Your task to perform on an android device: Go to Yahoo.com Image 0: 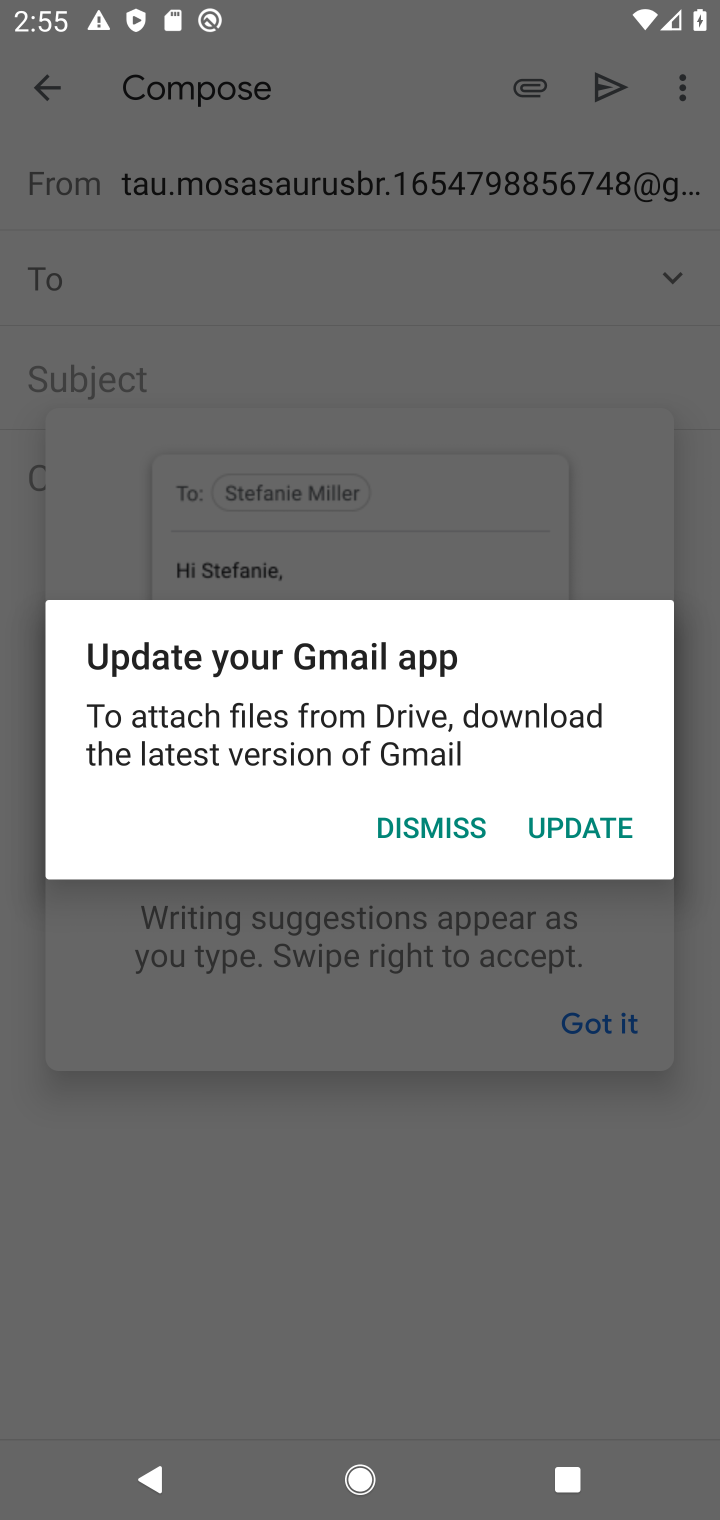
Step 0: press back button
Your task to perform on an android device: Go to Yahoo.com Image 1: 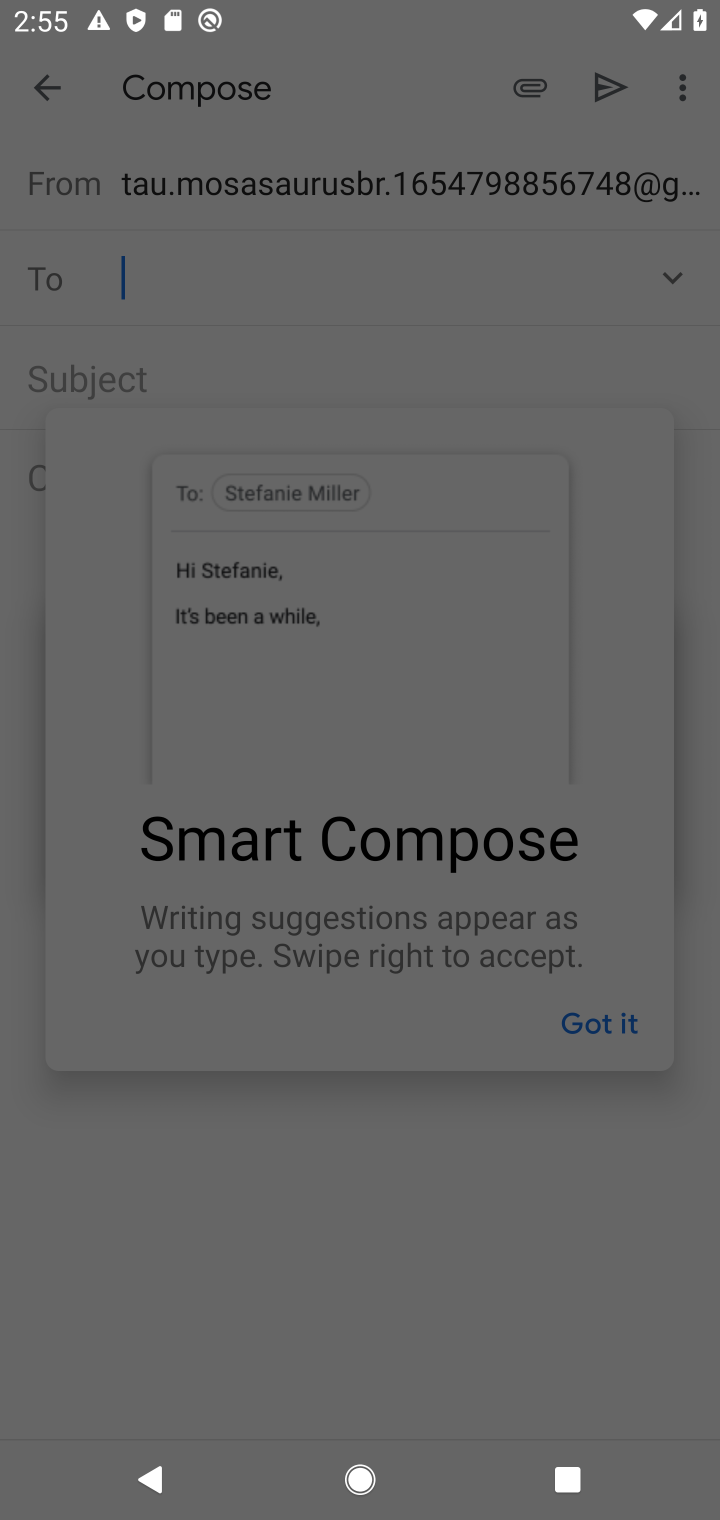
Step 1: press back button
Your task to perform on an android device: Go to Yahoo.com Image 2: 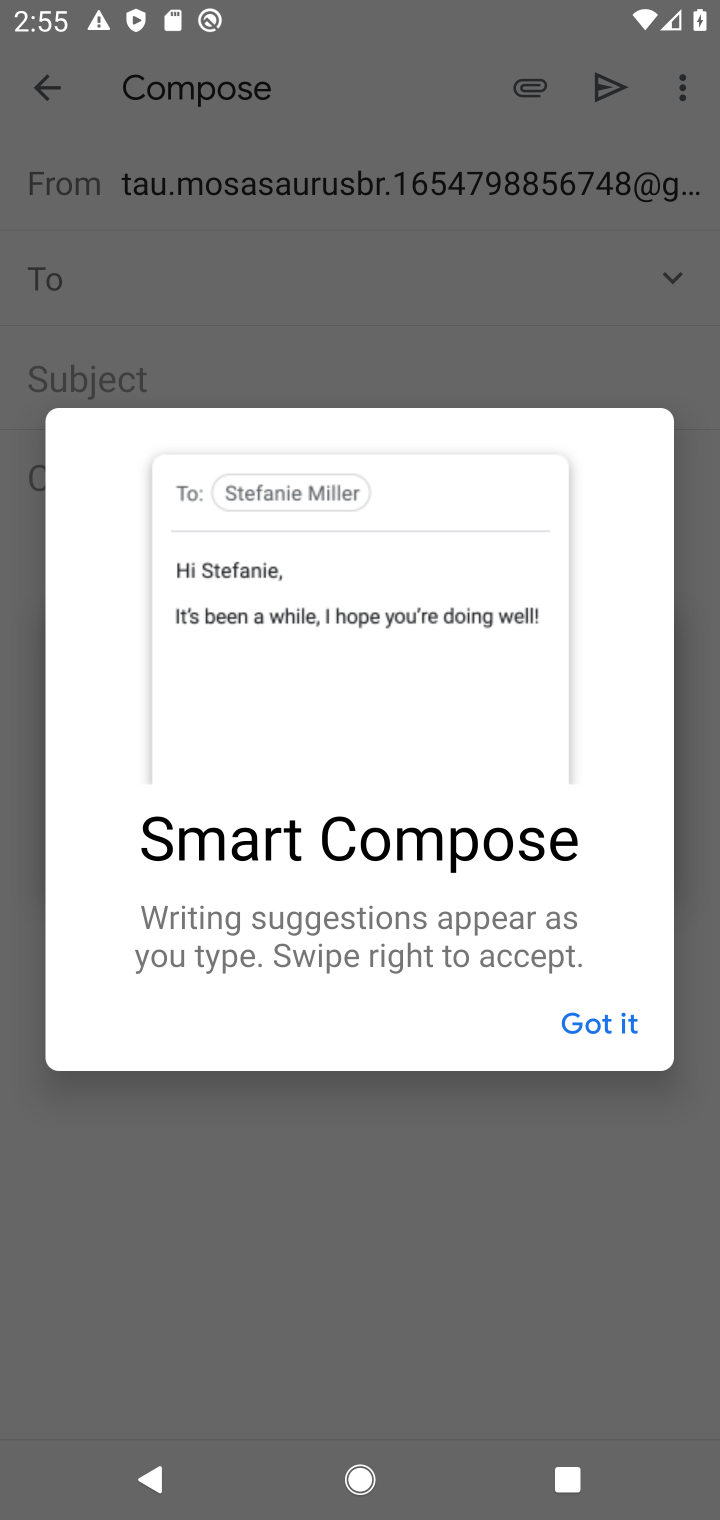
Step 2: press home button
Your task to perform on an android device: Go to Yahoo.com Image 3: 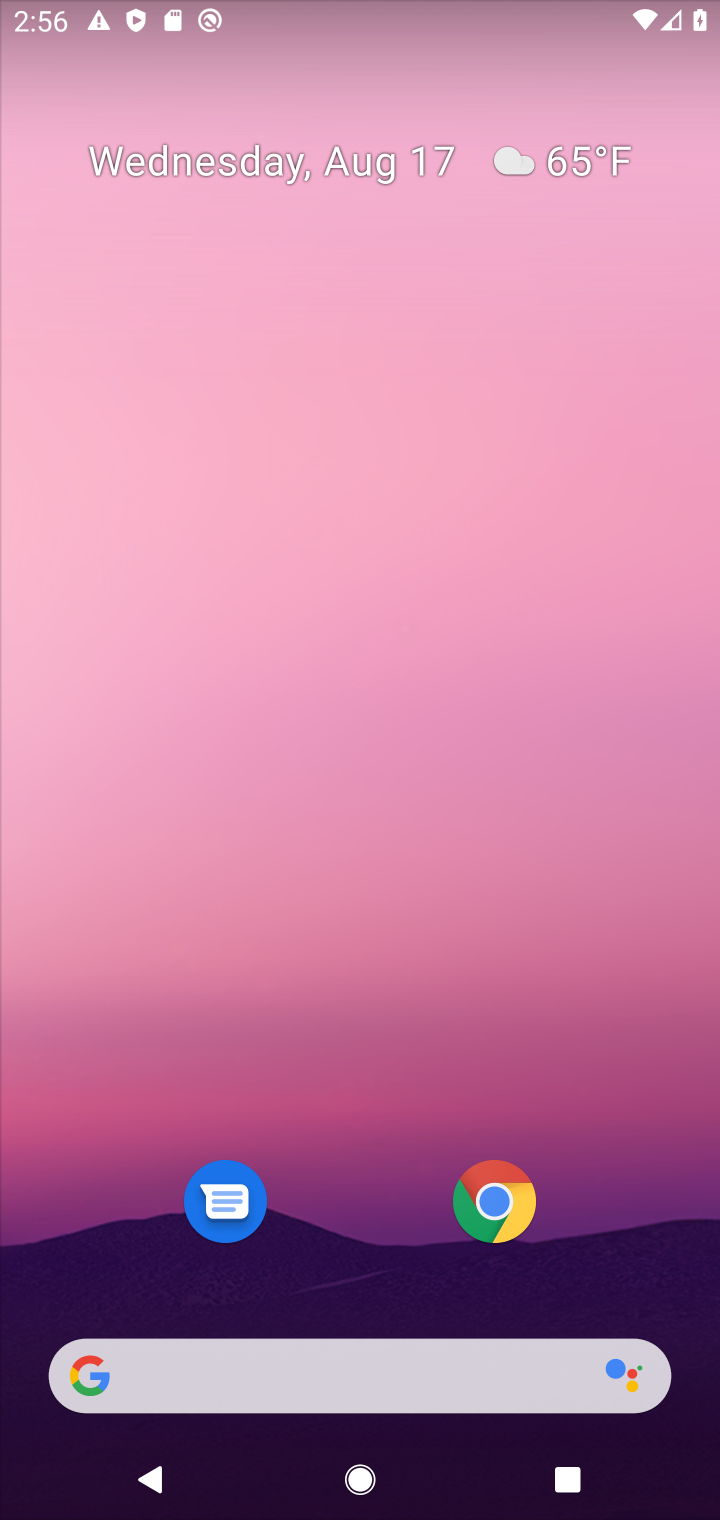
Step 3: click (525, 1209)
Your task to perform on an android device: Go to Yahoo.com Image 4: 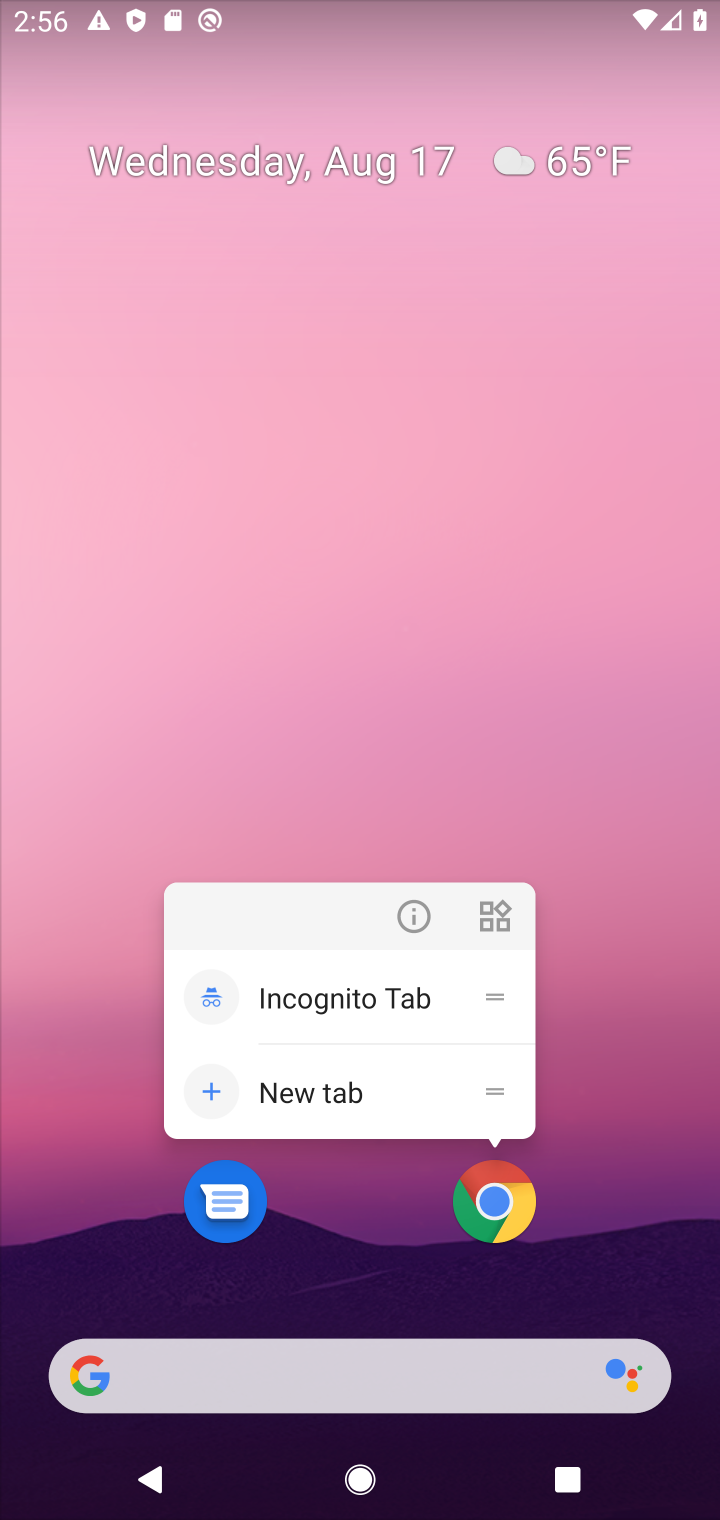
Step 4: click (500, 1200)
Your task to perform on an android device: Go to Yahoo.com Image 5: 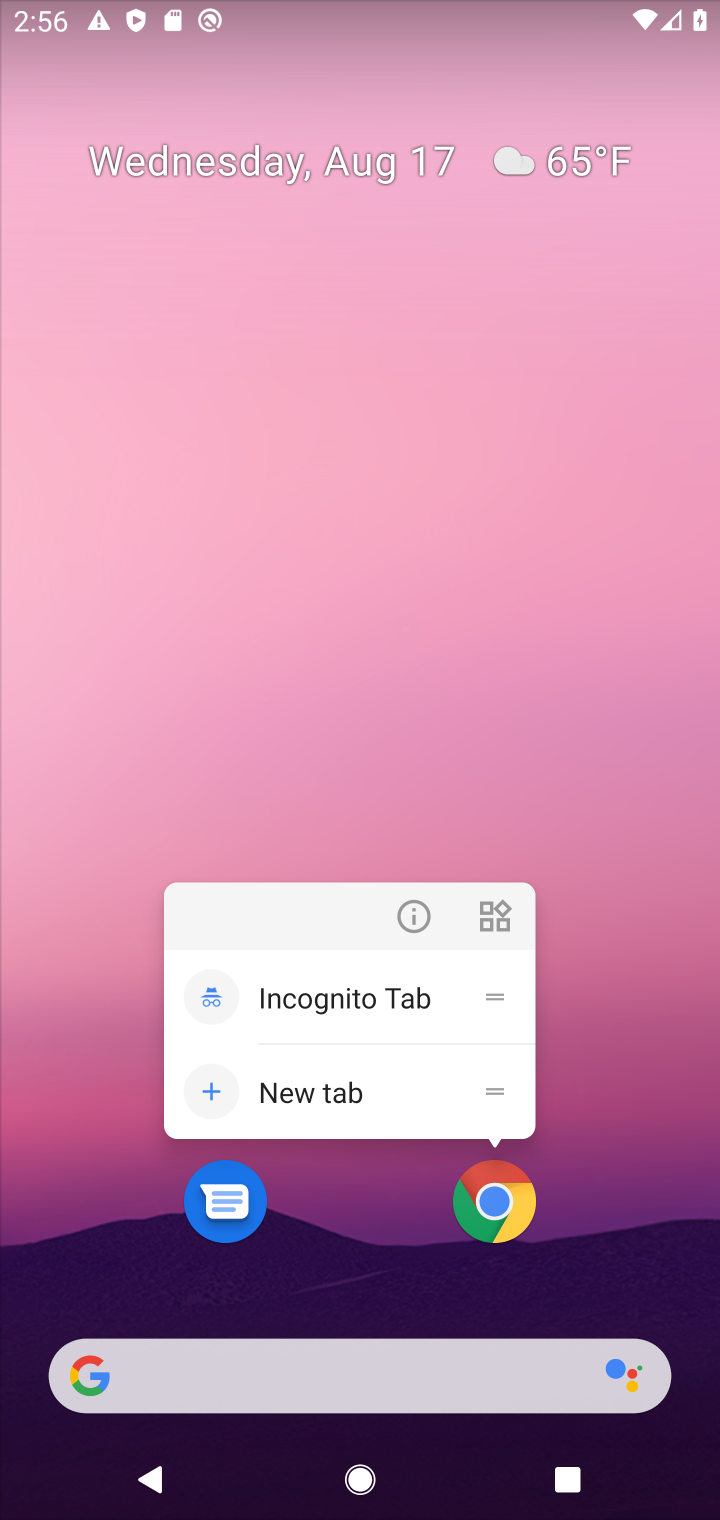
Step 5: click (493, 1186)
Your task to perform on an android device: Go to Yahoo.com Image 6: 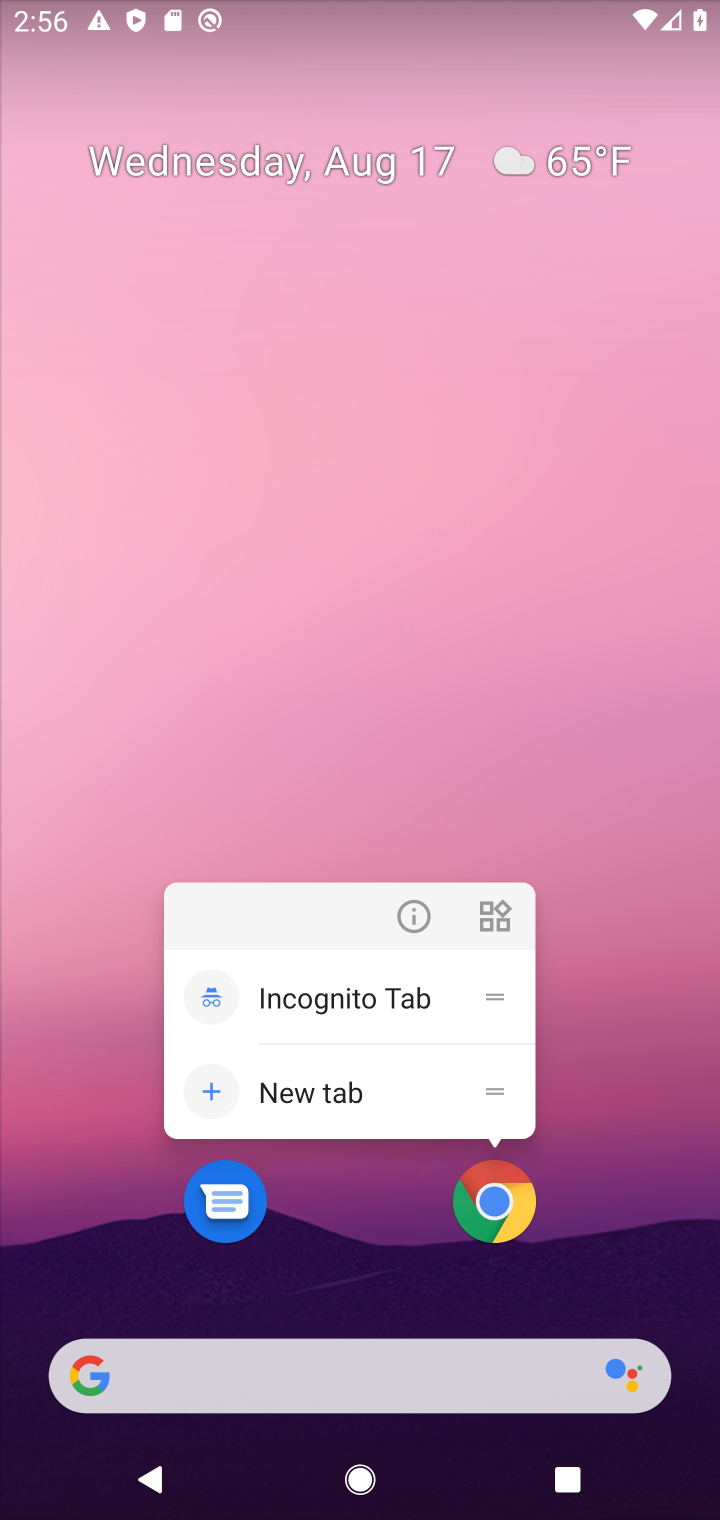
Step 6: click (500, 1216)
Your task to perform on an android device: Go to Yahoo.com Image 7: 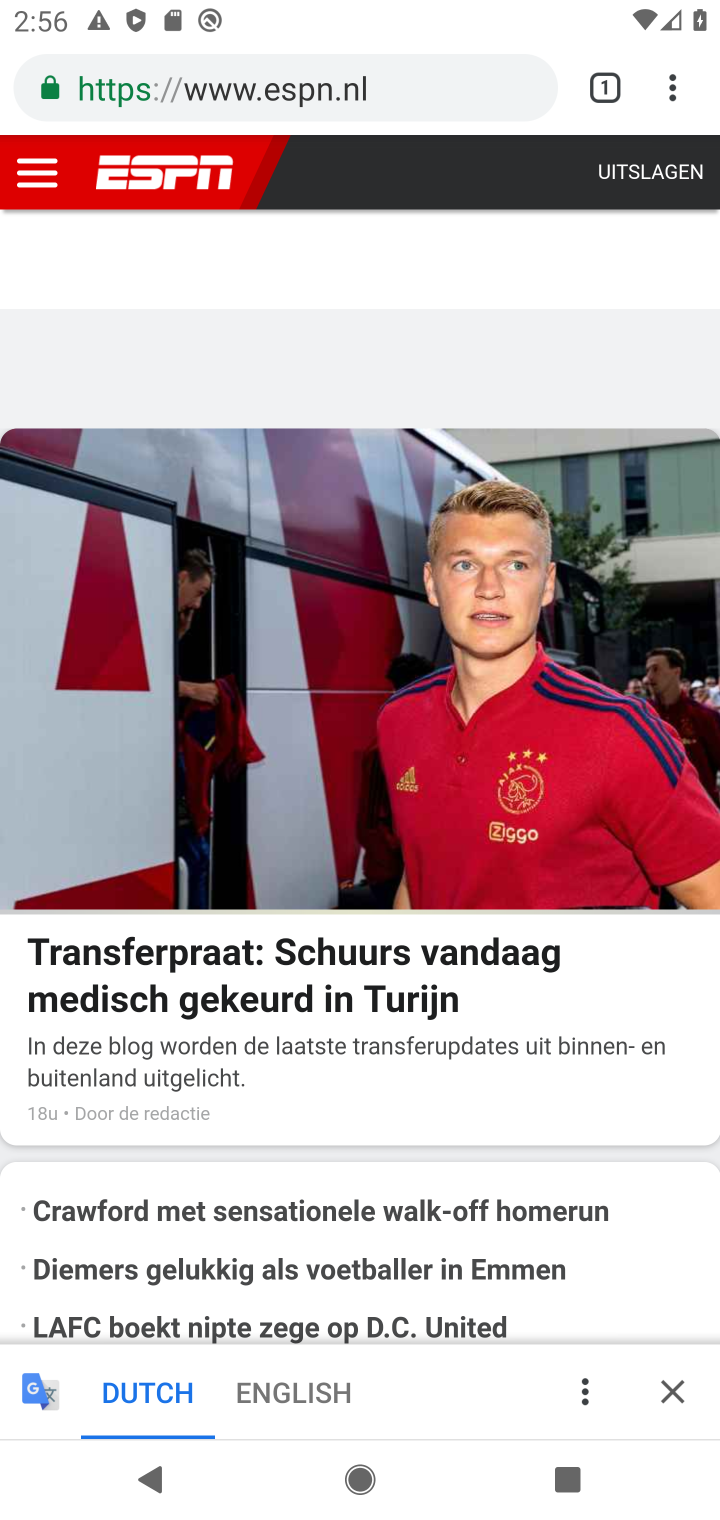
Step 7: click (604, 72)
Your task to perform on an android device: Go to Yahoo.com Image 8: 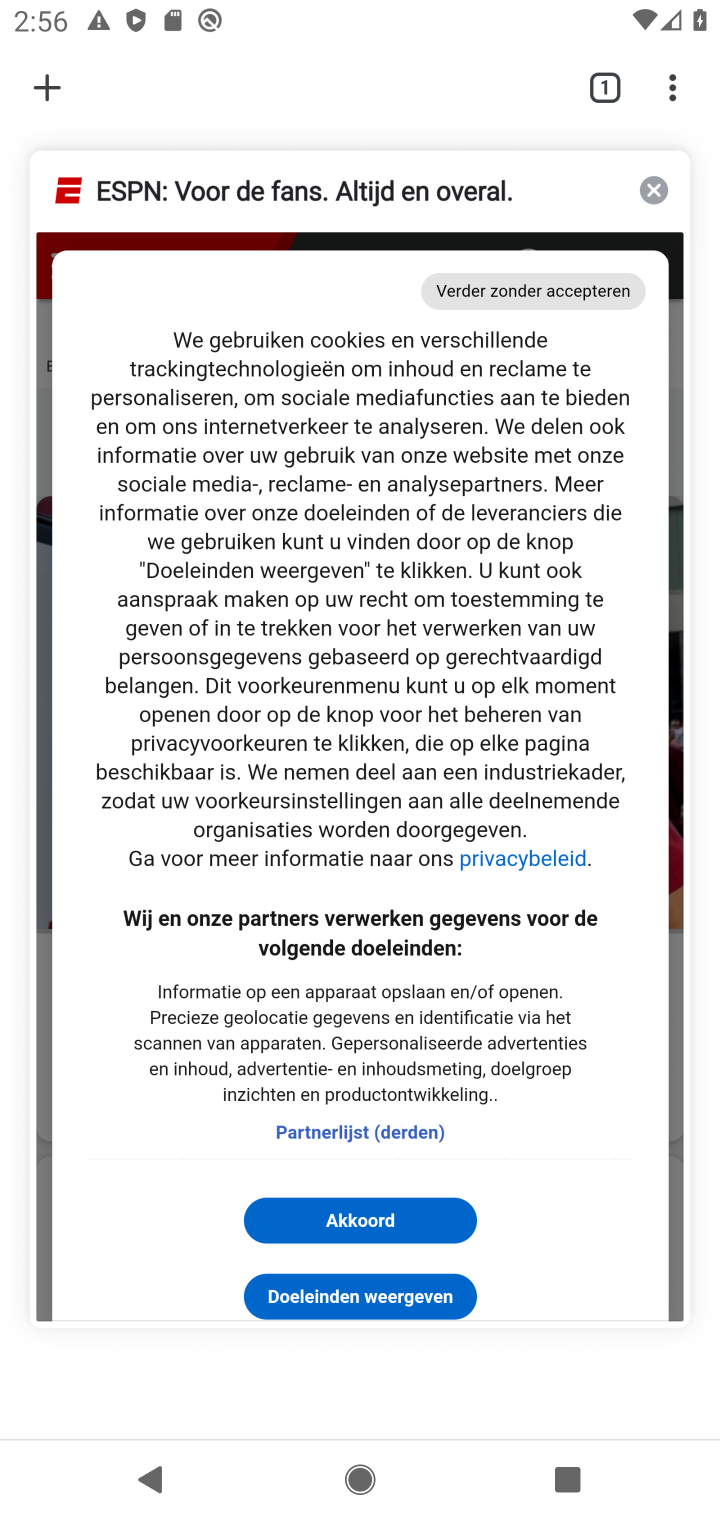
Step 8: click (602, 74)
Your task to perform on an android device: Go to Yahoo.com Image 9: 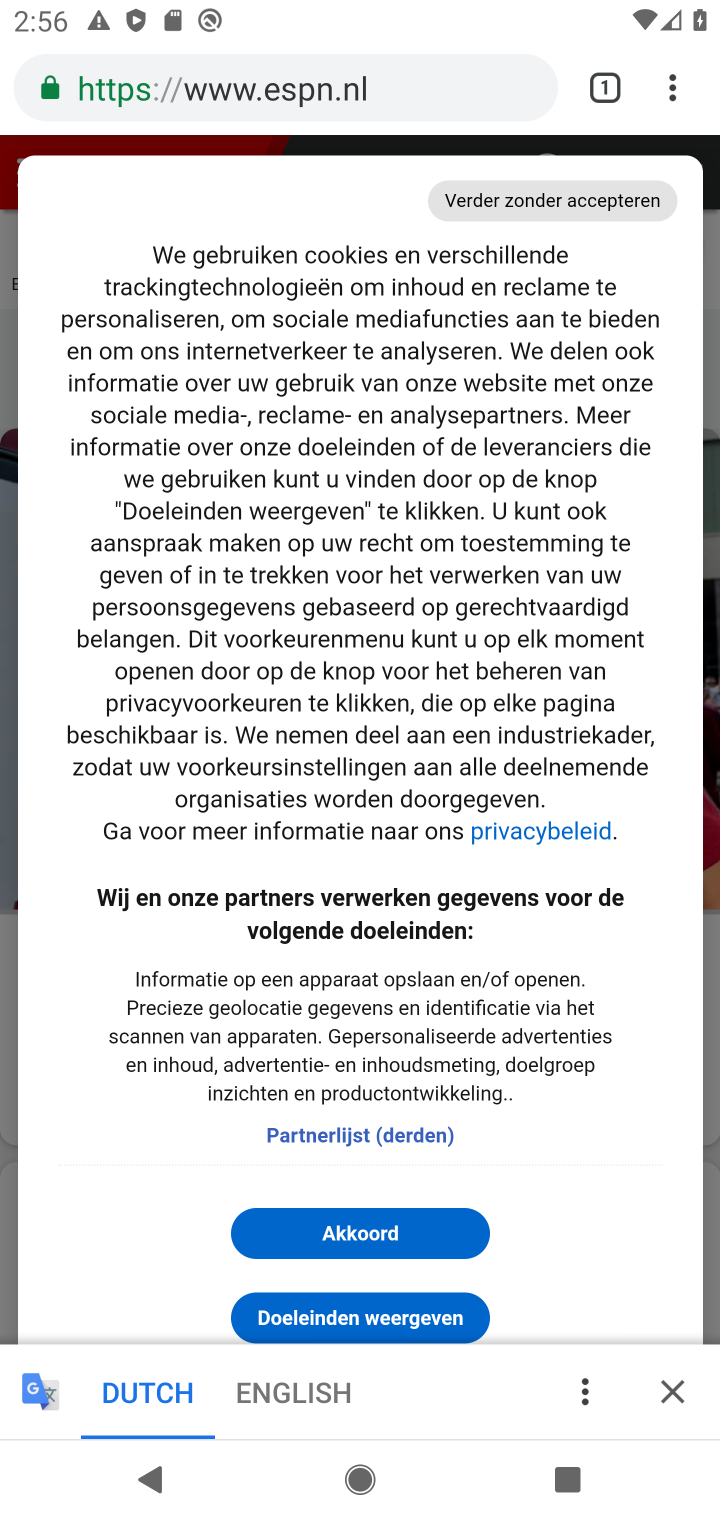
Step 9: click (618, 86)
Your task to perform on an android device: Go to Yahoo.com Image 10: 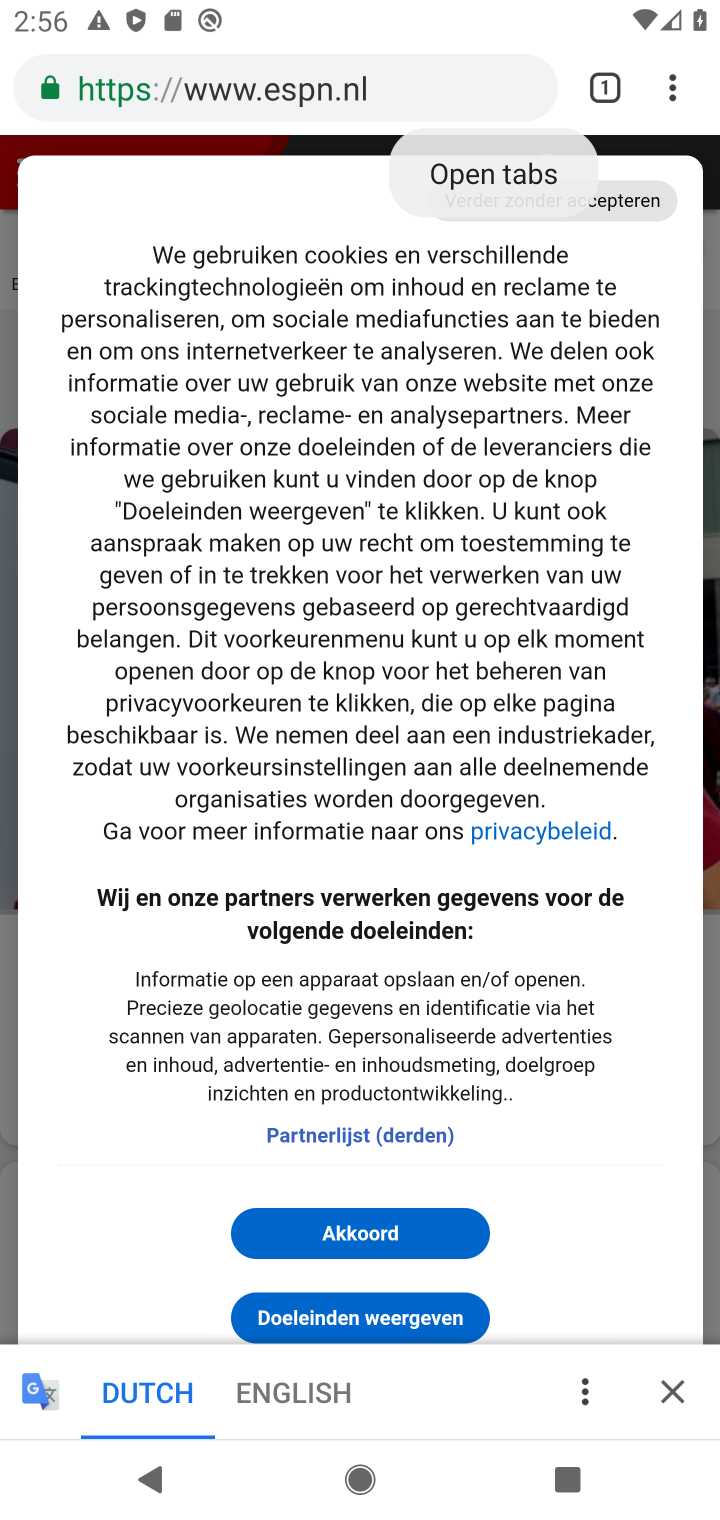
Step 10: click (610, 94)
Your task to perform on an android device: Go to Yahoo.com Image 11: 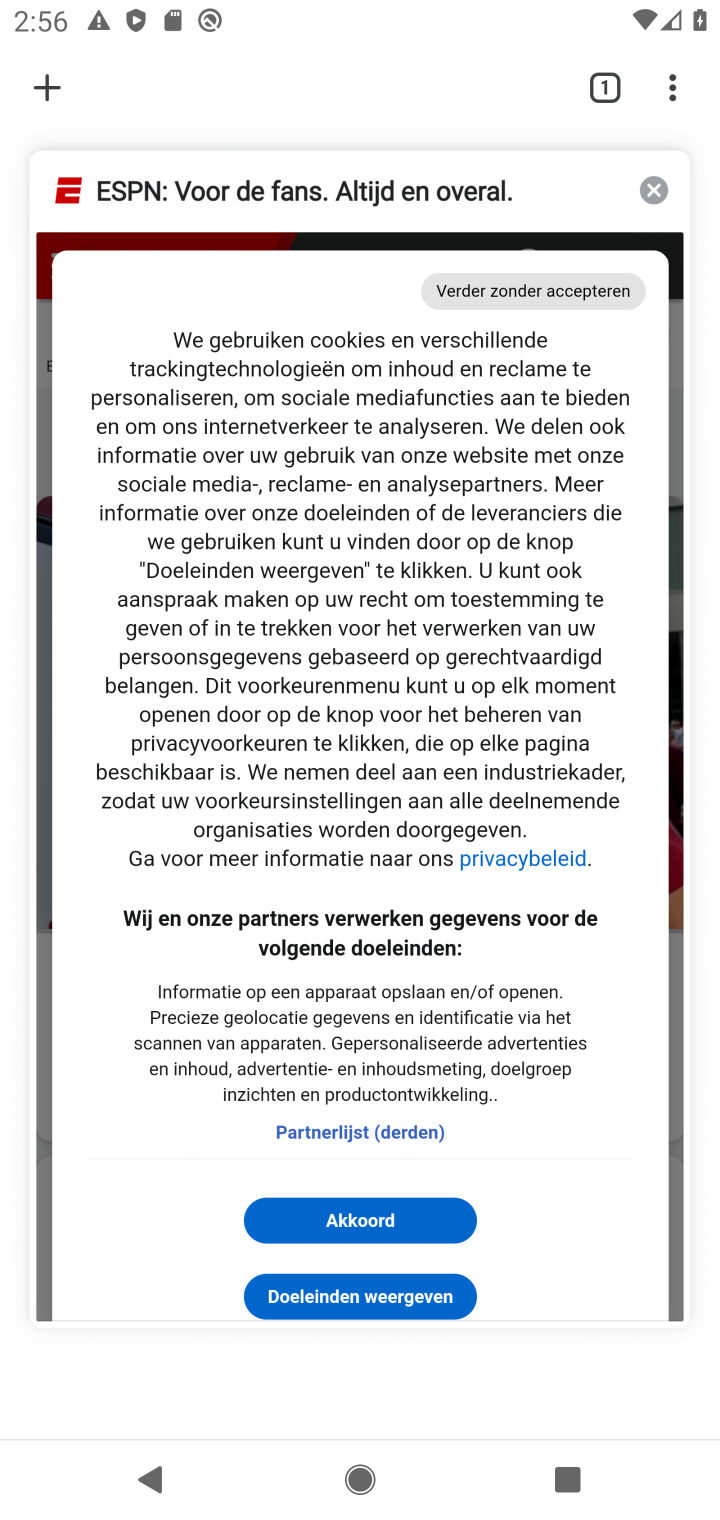
Step 11: click (33, 78)
Your task to perform on an android device: Go to Yahoo.com Image 12: 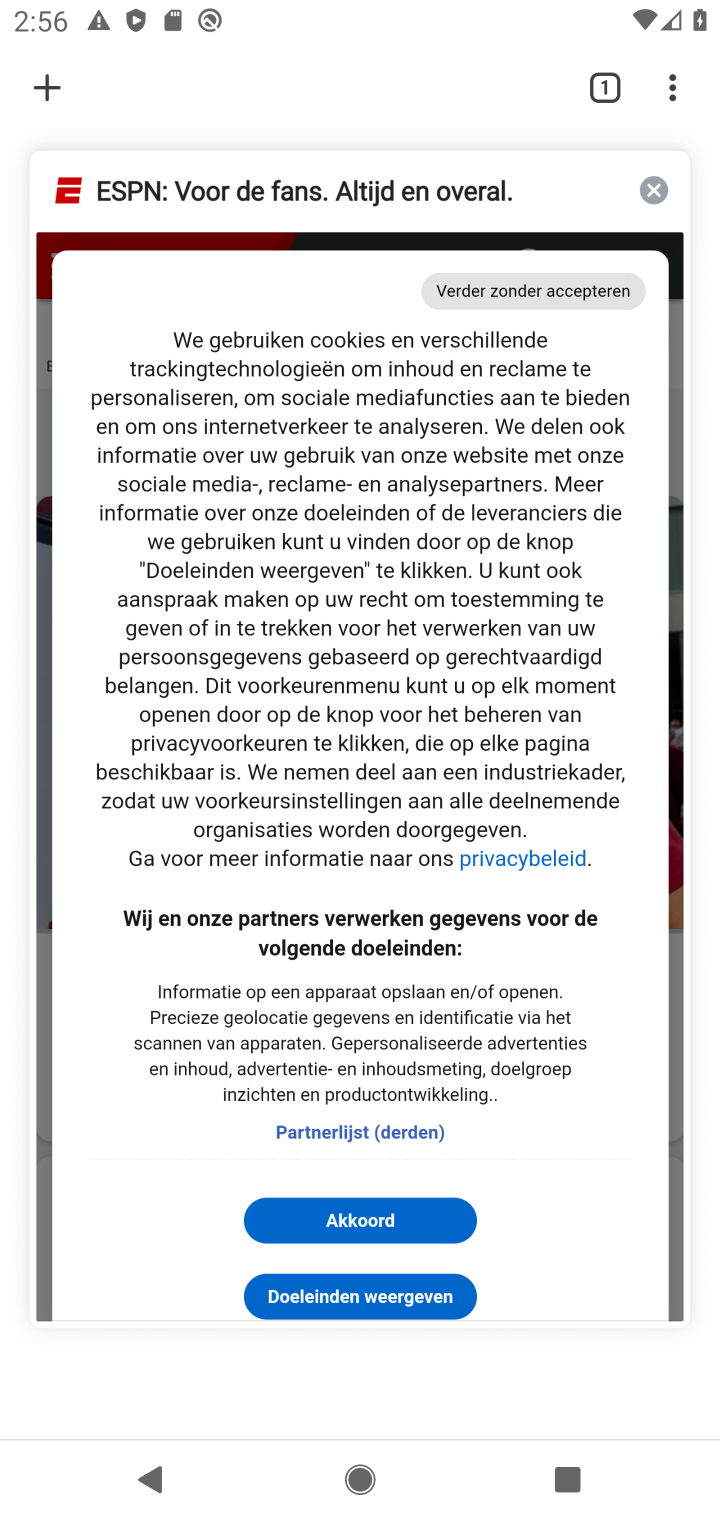
Step 12: click (34, 67)
Your task to perform on an android device: Go to Yahoo.com Image 13: 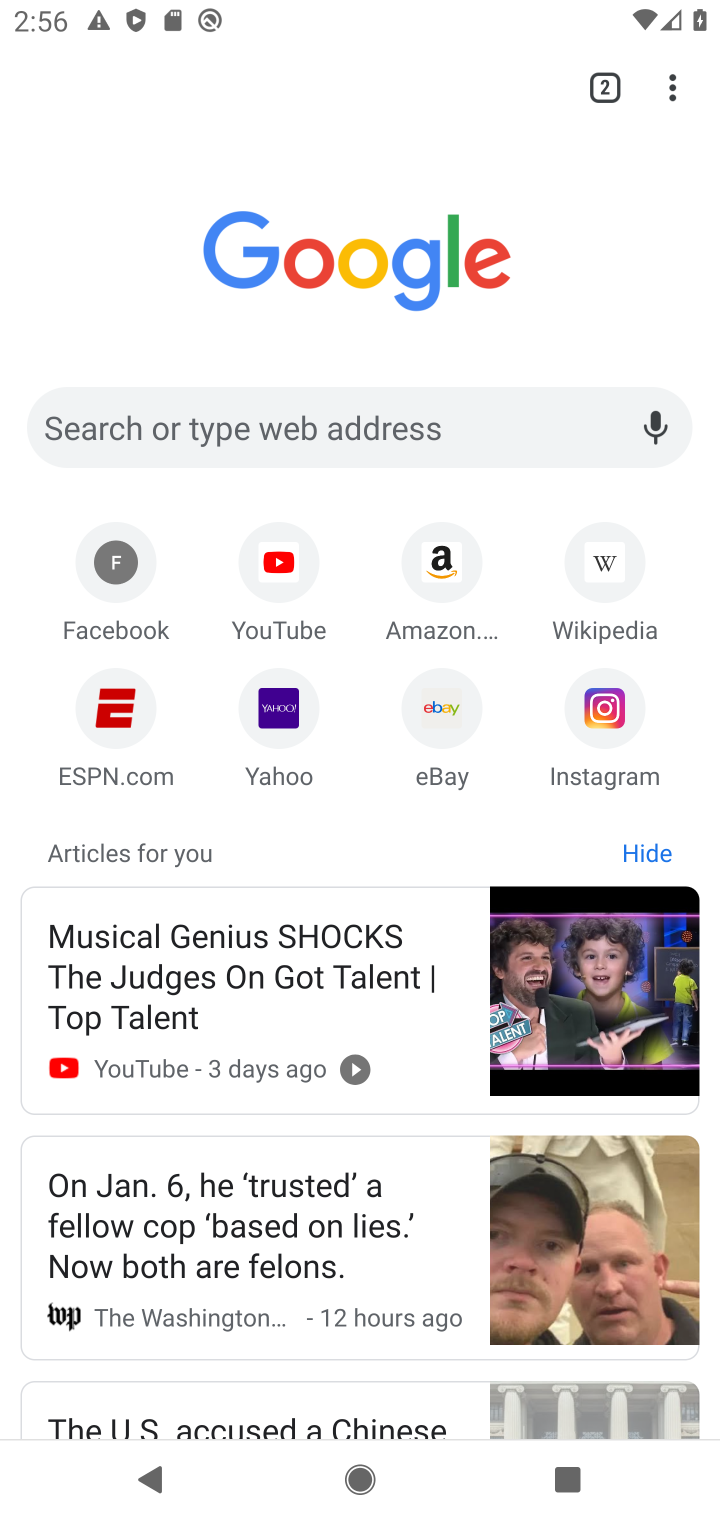
Step 13: click (292, 716)
Your task to perform on an android device: Go to Yahoo.com Image 14: 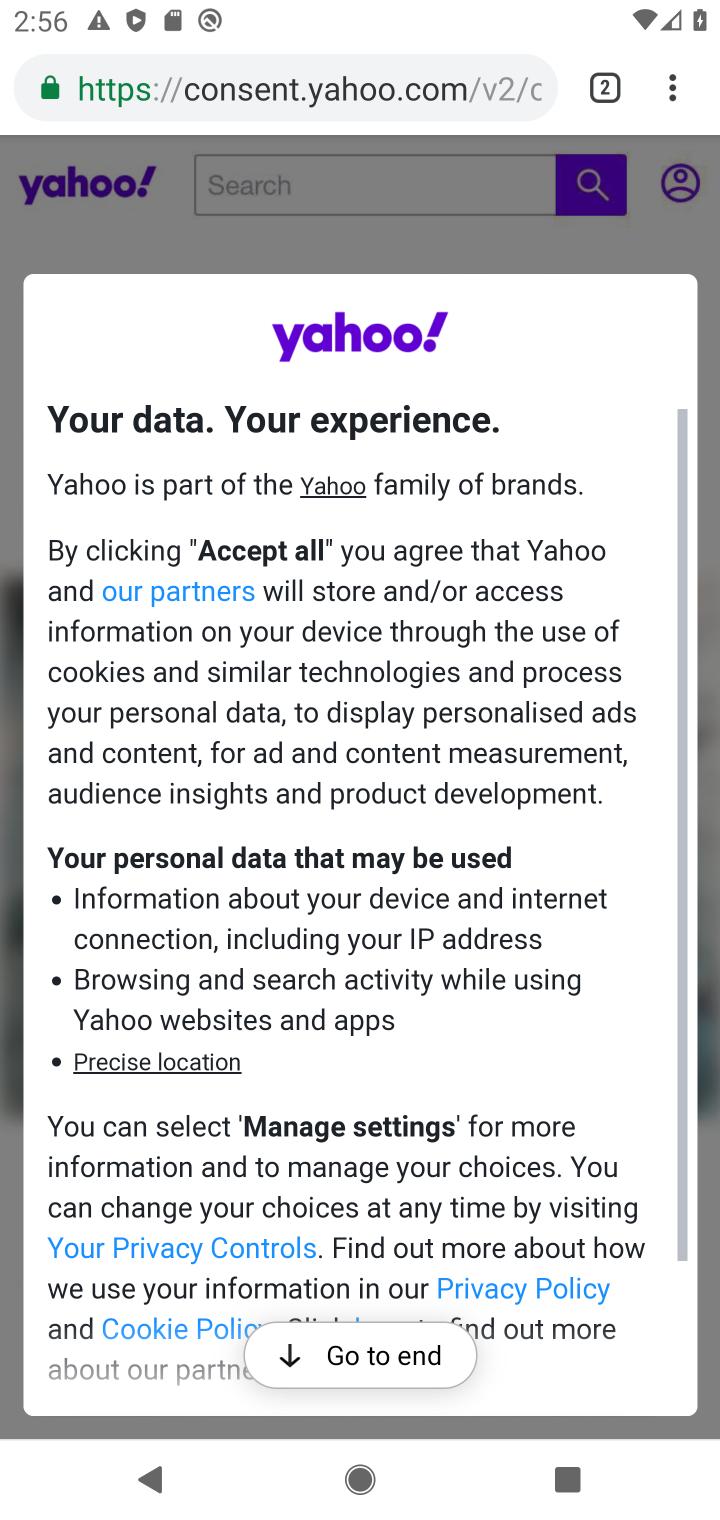
Step 14: task complete